Your task to perform on an android device: turn on the 12-hour format for clock Image 0: 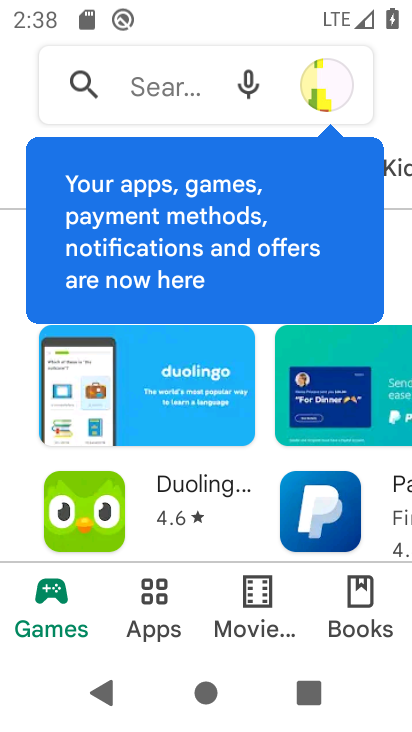
Step 0: press home button
Your task to perform on an android device: turn on the 12-hour format for clock Image 1: 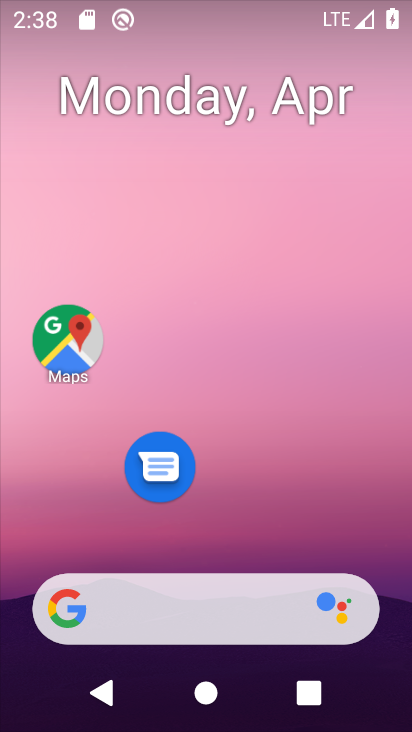
Step 1: drag from (281, 530) to (282, 42)
Your task to perform on an android device: turn on the 12-hour format for clock Image 2: 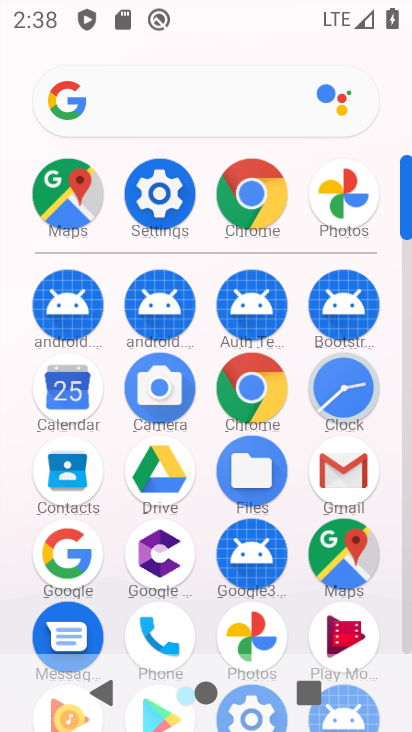
Step 2: click (349, 403)
Your task to perform on an android device: turn on the 12-hour format for clock Image 3: 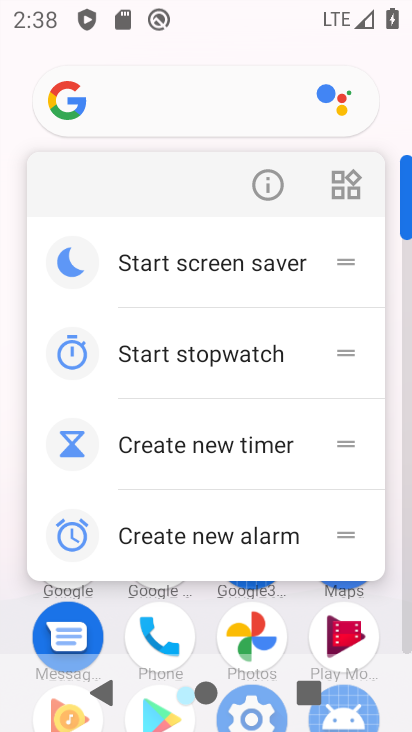
Step 3: click (390, 433)
Your task to perform on an android device: turn on the 12-hour format for clock Image 4: 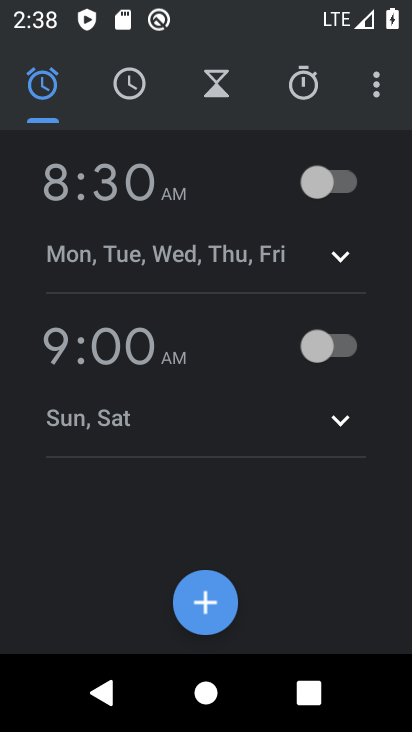
Step 4: click (363, 94)
Your task to perform on an android device: turn on the 12-hour format for clock Image 5: 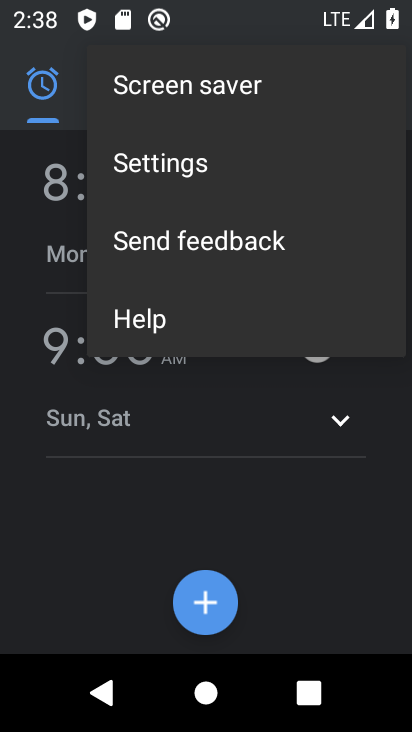
Step 5: click (346, 160)
Your task to perform on an android device: turn on the 12-hour format for clock Image 6: 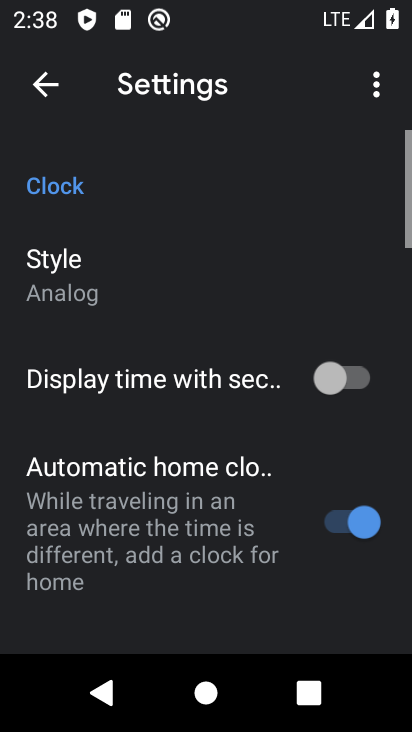
Step 6: drag from (233, 507) to (249, 54)
Your task to perform on an android device: turn on the 12-hour format for clock Image 7: 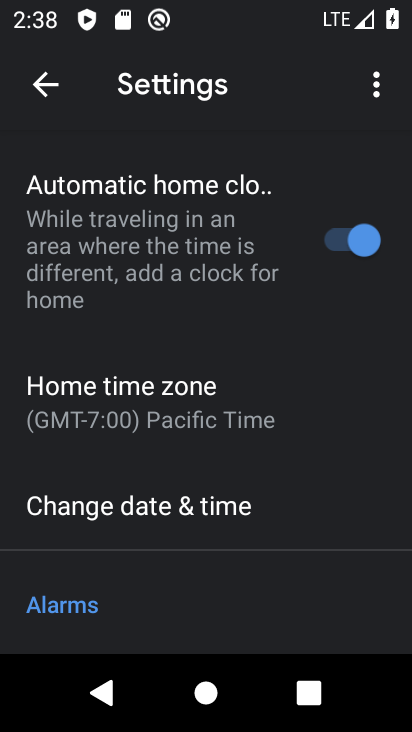
Step 7: click (199, 203)
Your task to perform on an android device: turn on the 12-hour format for clock Image 8: 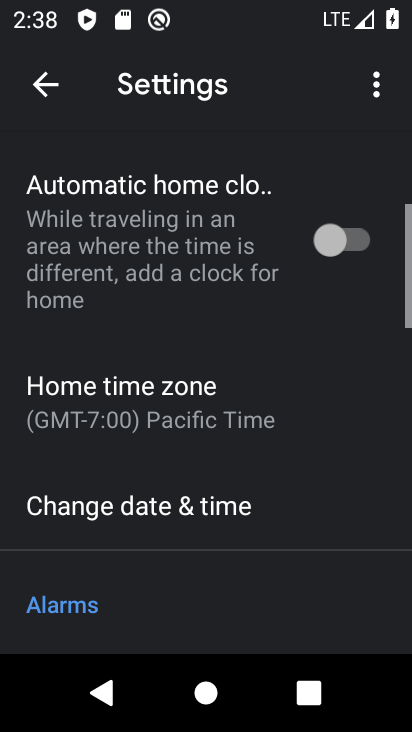
Step 8: click (156, 489)
Your task to perform on an android device: turn on the 12-hour format for clock Image 9: 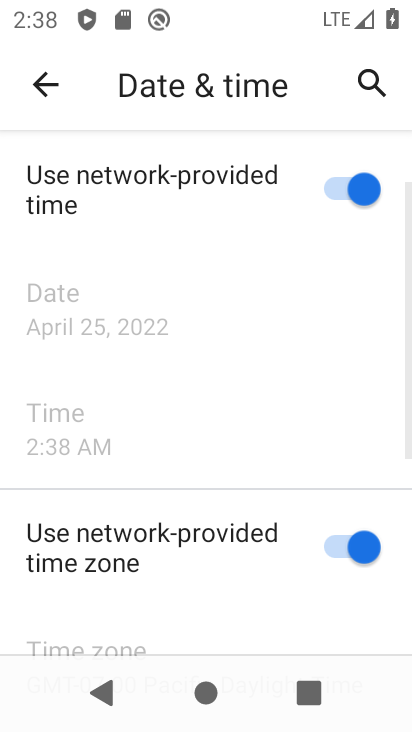
Step 9: task complete